Your task to perform on an android device: delete the emails in spam in the gmail app Image 0: 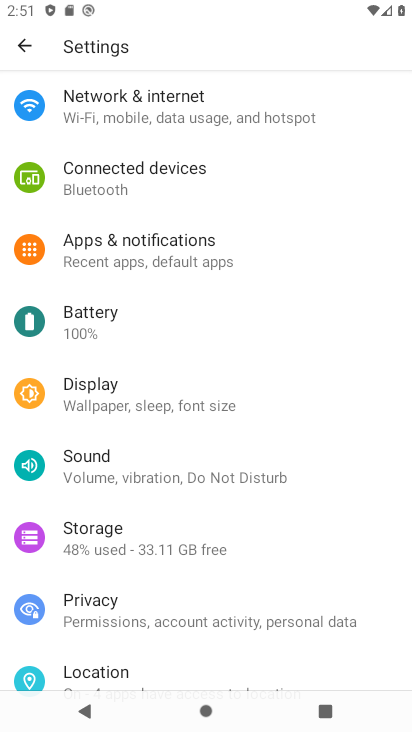
Step 0: press home button
Your task to perform on an android device: delete the emails in spam in the gmail app Image 1: 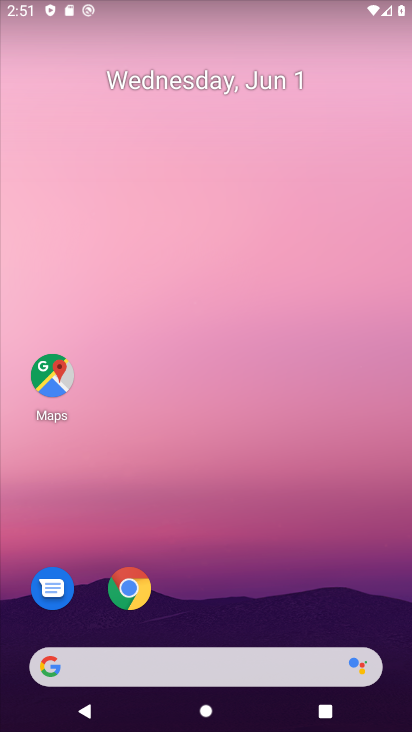
Step 1: drag from (298, 599) to (372, 254)
Your task to perform on an android device: delete the emails in spam in the gmail app Image 2: 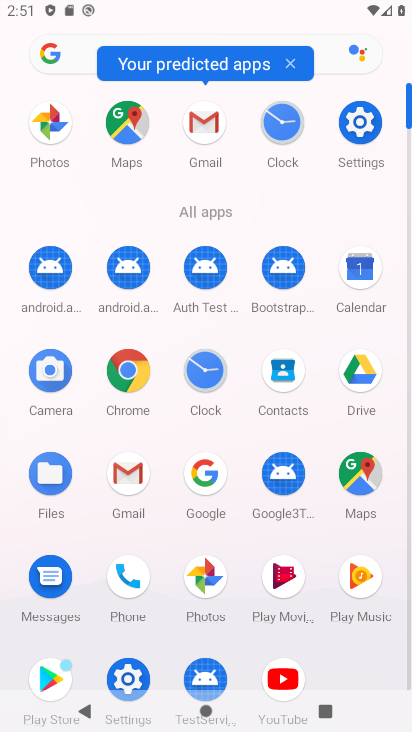
Step 2: click (129, 472)
Your task to perform on an android device: delete the emails in spam in the gmail app Image 3: 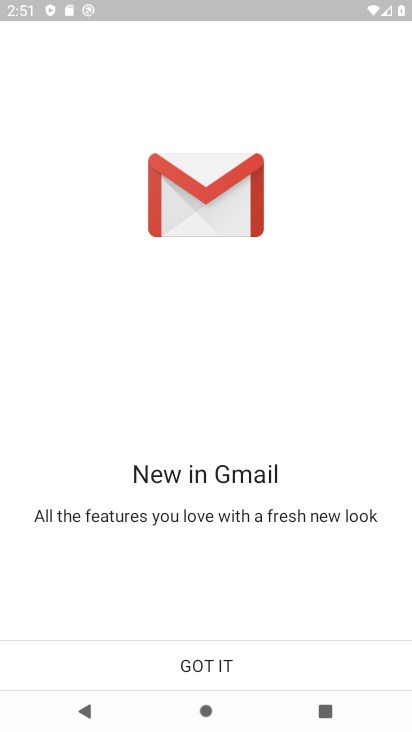
Step 3: drag from (165, 462) to (115, 458)
Your task to perform on an android device: delete the emails in spam in the gmail app Image 4: 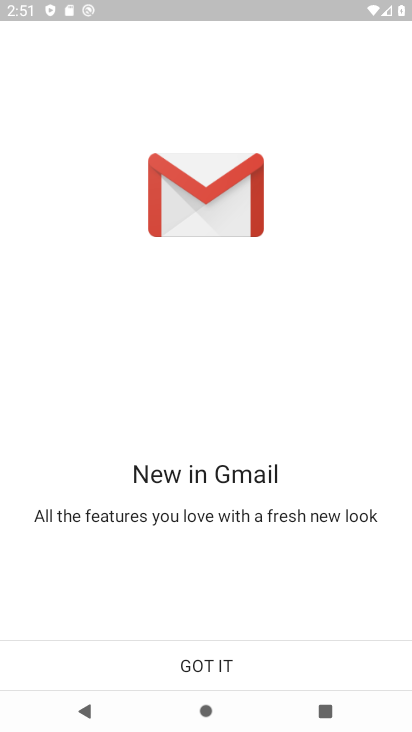
Step 4: click (207, 656)
Your task to perform on an android device: delete the emails in spam in the gmail app Image 5: 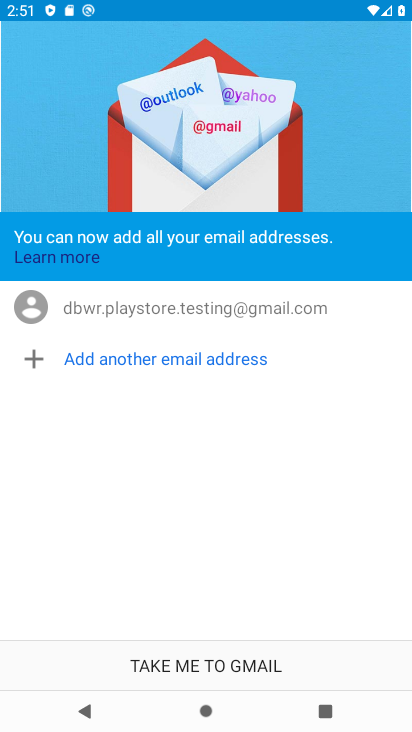
Step 5: click (240, 664)
Your task to perform on an android device: delete the emails in spam in the gmail app Image 6: 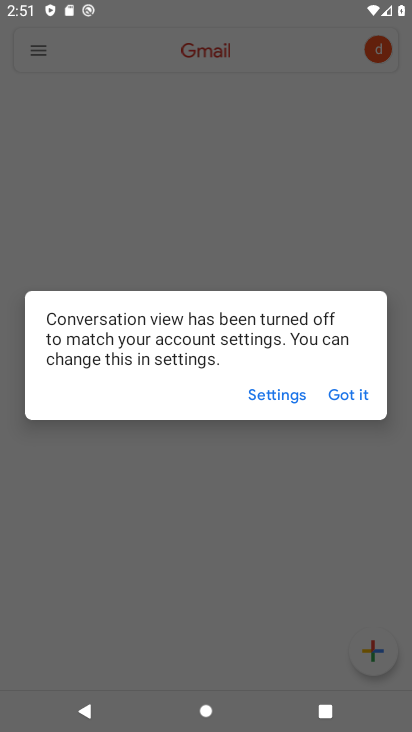
Step 6: click (351, 391)
Your task to perform on an android device: delete the emails in spam in the gmail app Image 7: 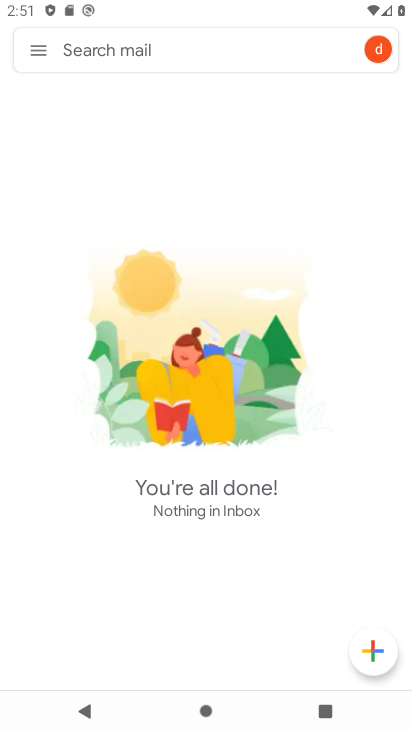
Step 7: click (33, 51)
Your task to perform on an android device: delete the emails in spam in the gmail app Image 8: 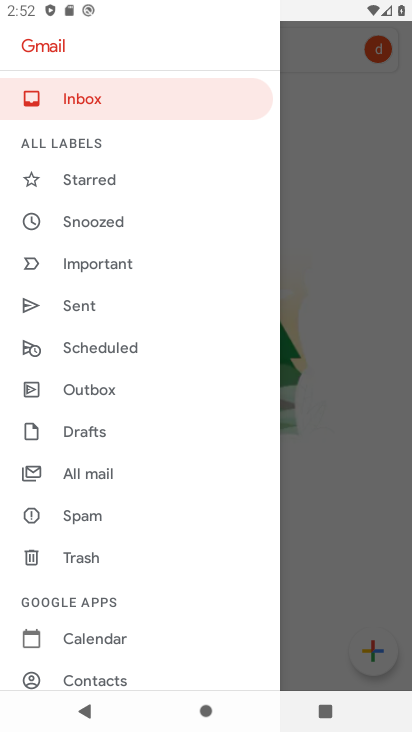
Step 8: click (102, 518)
Your task to perform on an android device: delete the emails in spam in the gmail app Image 9: 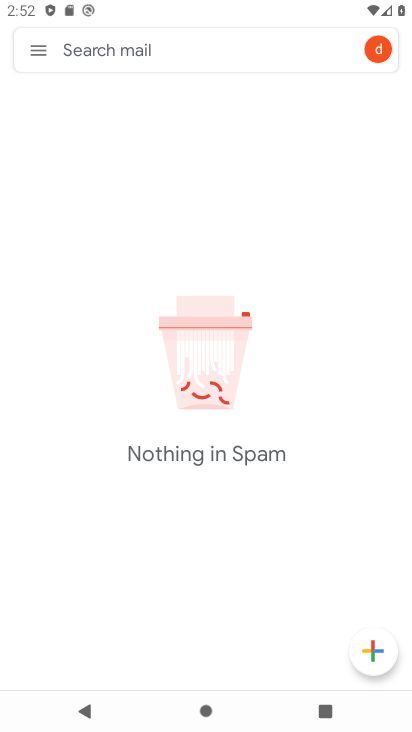
Step 9: task complete